Your task to perform on an android device: create a new album in the google photos Image 0: 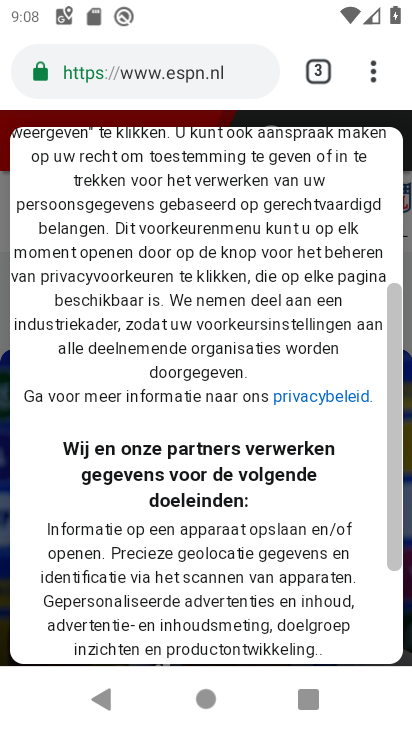
Step 0: press back button
Your task to perform on an android device: create a new album in the google photos Image 1: 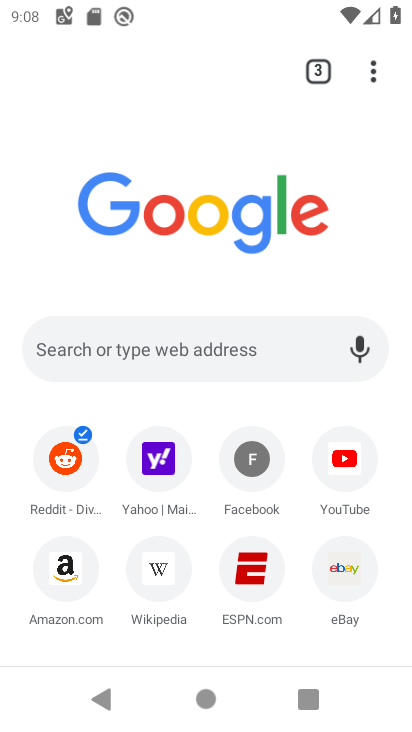
Step 1: press home button
Your task to perform on an android device: create a new album in the google photos Image 2: 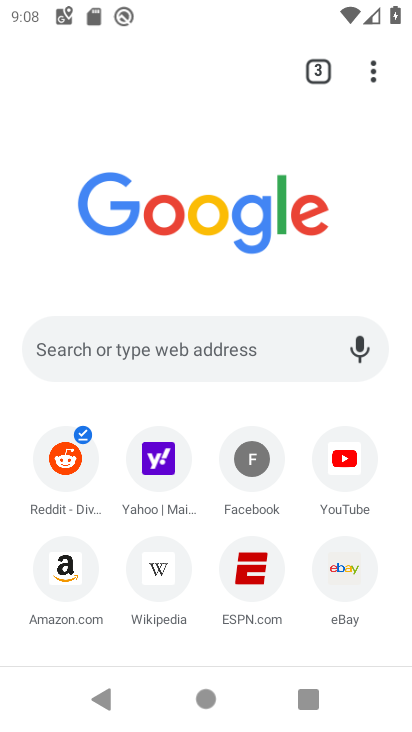
Step 2: press home button
Your task to perform on an android device: create a new album in the google photos Image 3: 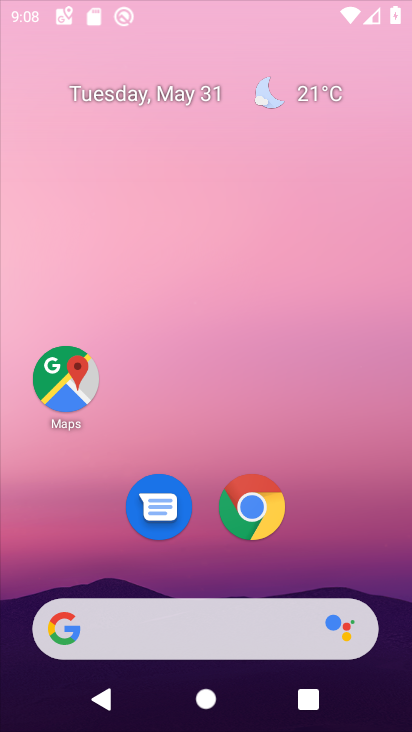
Step 3: press home button
Your task to perform on an android device: create a new album in the google photos Image 4: 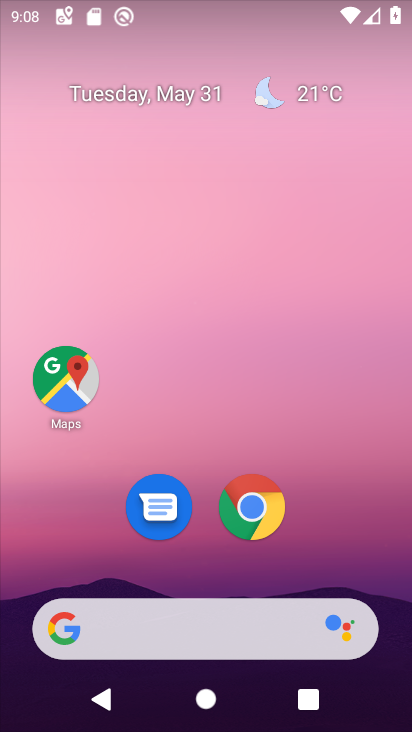
Step 4: drag from (261, 682) to (232, 19)
Your task to perform on an android device: create a new album in the google photos Image 5: 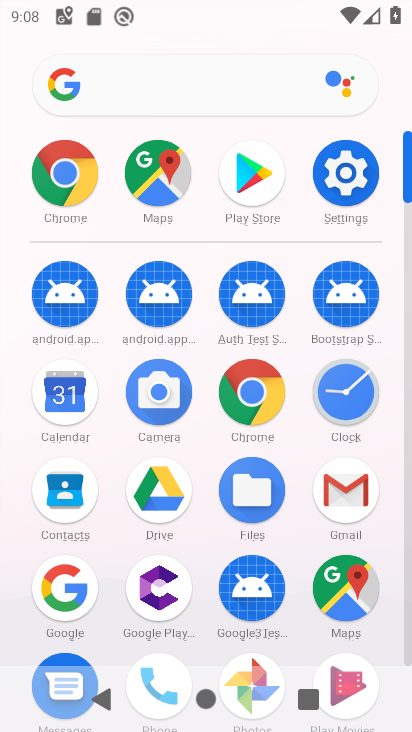
Step 5: drag from (308, 531) to (302, 114)
Your task to perform on an android device: create a new album in the google photos Image 6: 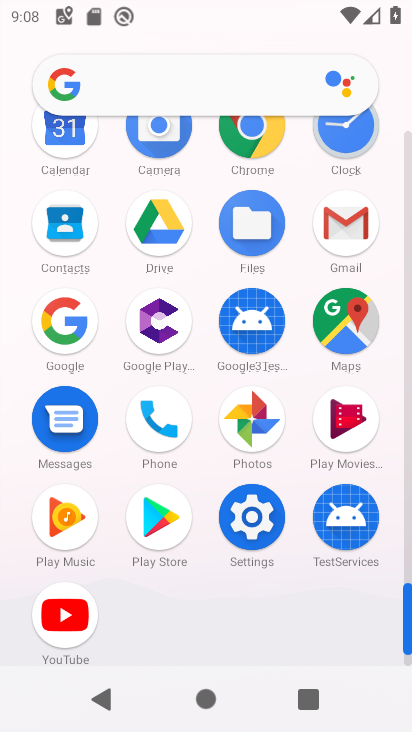
Step 6: drag from (305, 422) to (298, 74)
Your task to perform on an android device: create a new album in the google photos Image 7: 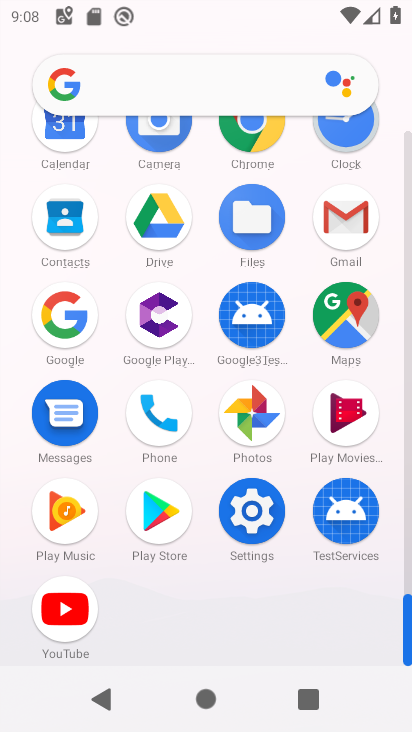
Step 7: click (246, 406)
Your task to perform on an android device: create a new album in the google photos Image 8: 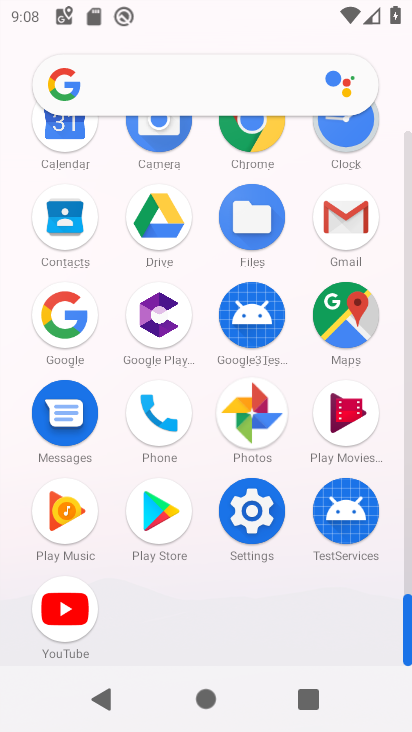
Step 8: click (246, 406)
Your task to perform on an android device: create a new album in the google photos Image 9: 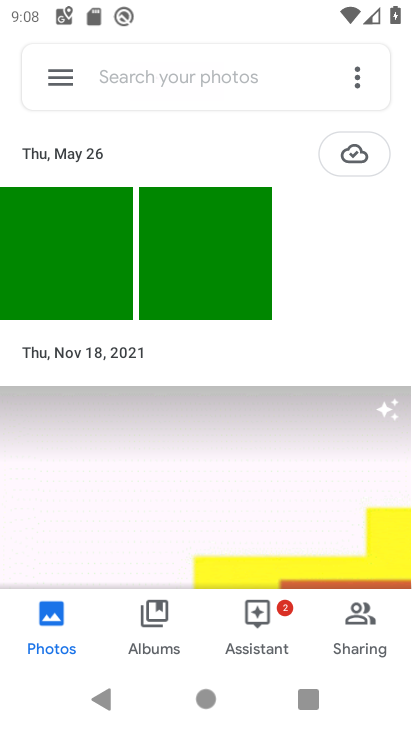
Step 9: click (356, 78)
Your task to perform on an android device: create a new album in the google photos Image 10: 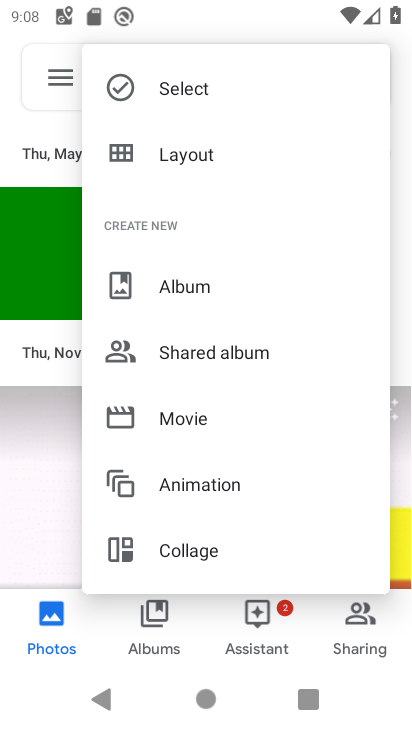
Step 10: click (174, 279)
Your task to perform on an android device: create a new album in the google photos Image 11: 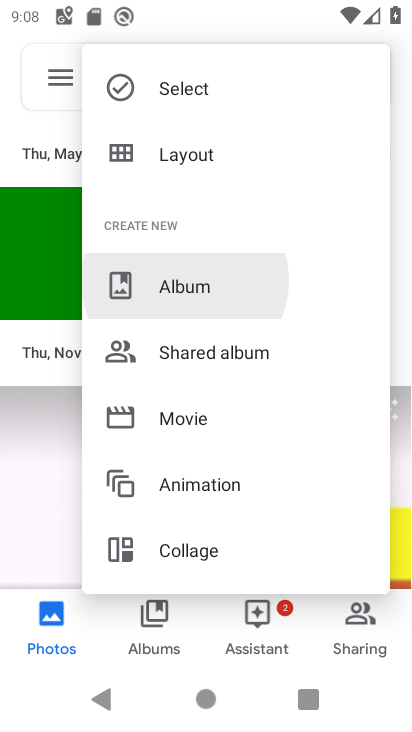
Step 11: click (177, 281)
Your task to perform on an android device: create a new album in the google photos Image 12: 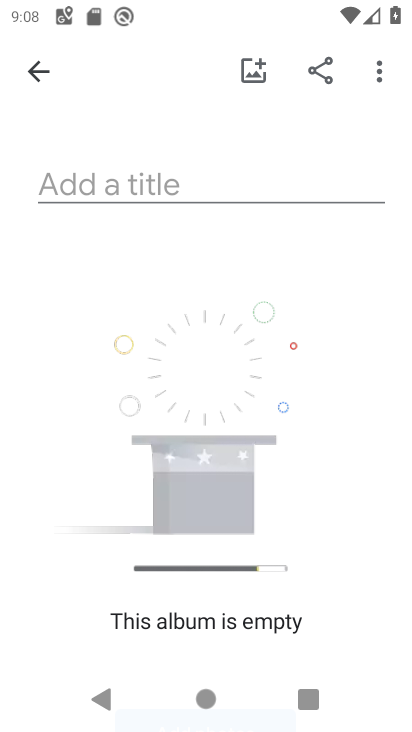
Step 12: click (106, 176)
Your task to perform on an android device: create a new album in the google photos Image 13: 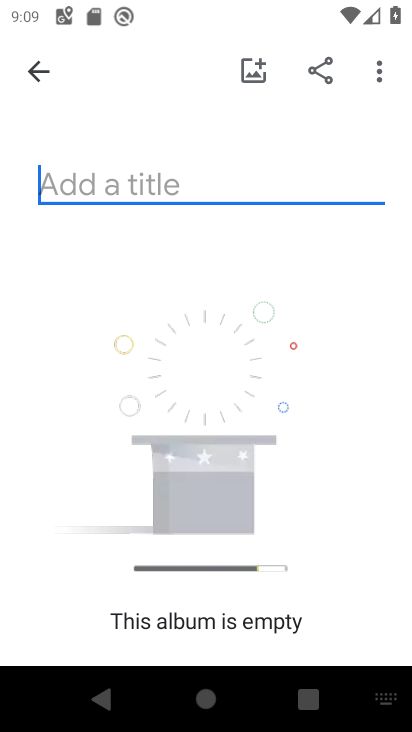
Step 13: type "rahu"
Your task to perform on an android device: create a new album in the google photos Image 14: 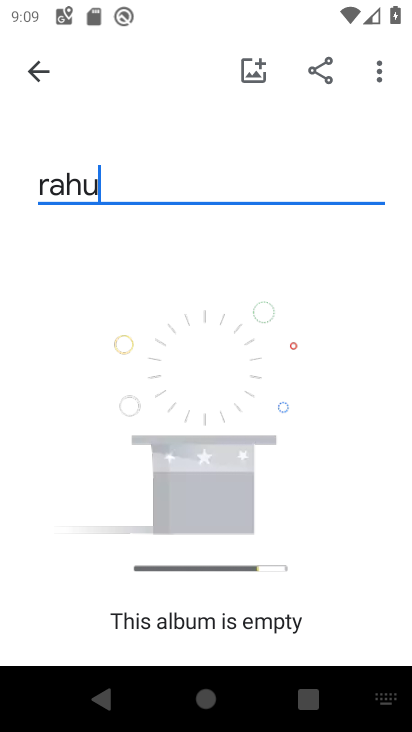
Step 14: click (176, 615)
Your task to perform on an android device: create a new album in the google photos Image 15: 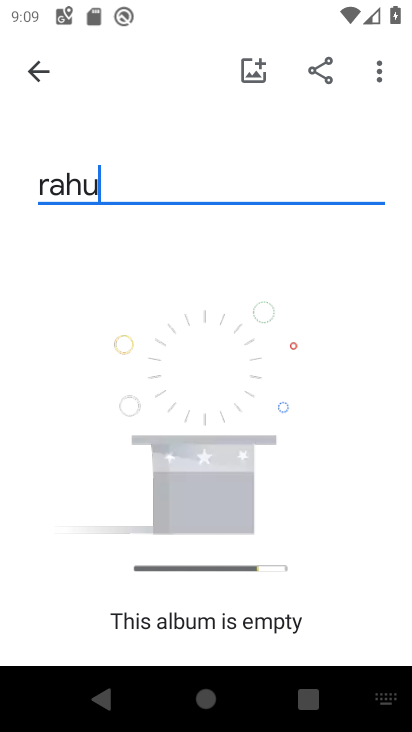
Step 15: click (176, 615)
Your task to perform on an android device: create a new album in the google photos Image 16: 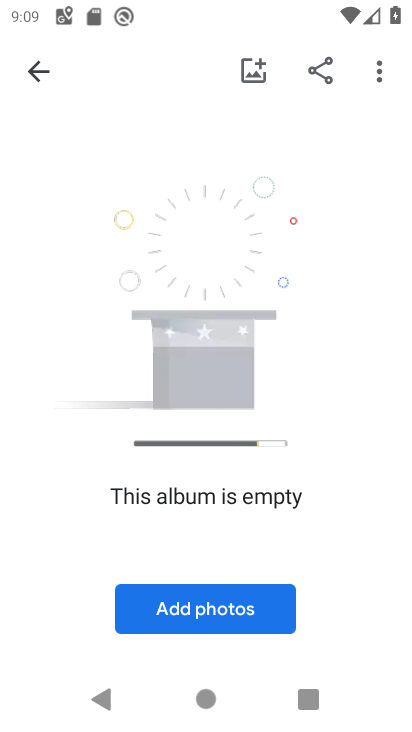
Step 16: click (176, 615)
Your task to perform on an android device: create a new album in the google photos Image 17: 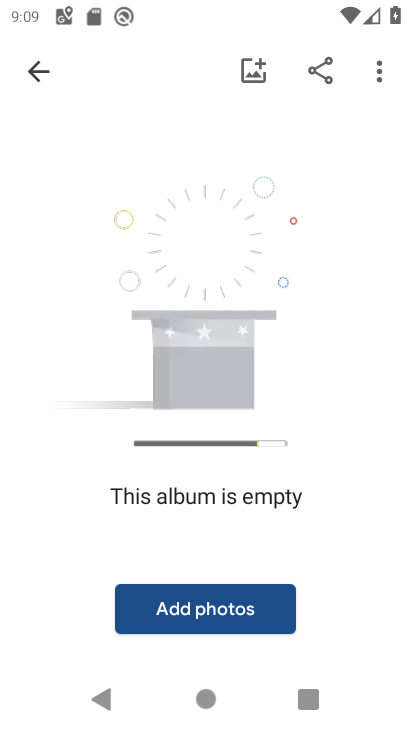
Step 17: click (176, 615)
Your task to perform on an android device: create a new album in the google photos Image 18: 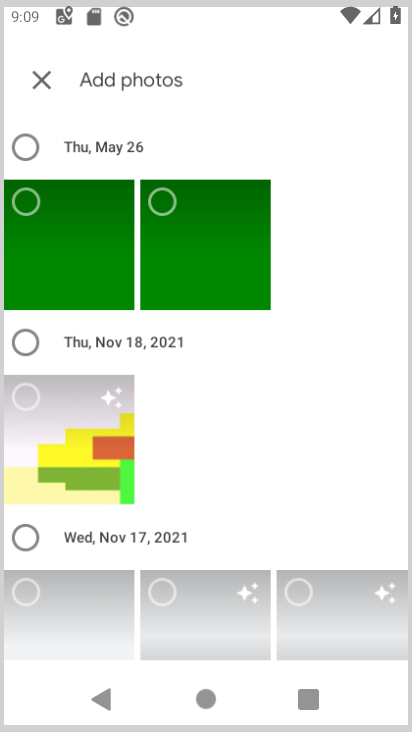
Step 18: click (176, 615)
Your task to perform on an android device: create a new album in the google photos Image 19: 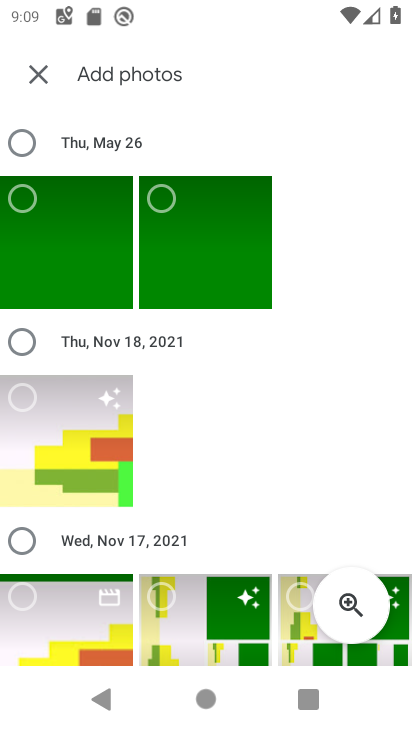
Step 19: click (25, 142)
Your task to perform on an android device: create a new album in the google photos Image 20: 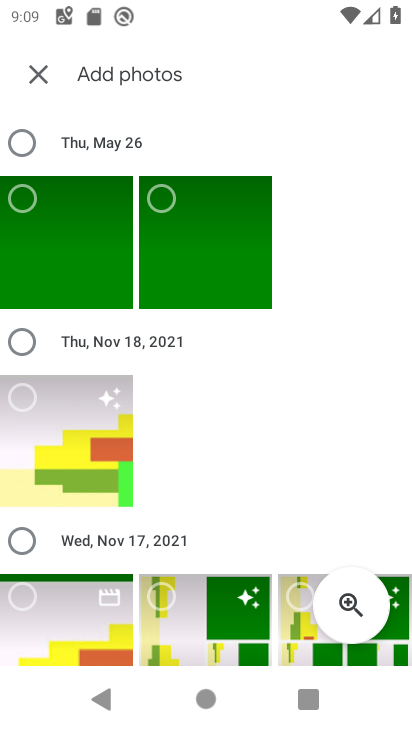
Step 20: click (25, 142)
Your task to perform on an android device: create a new album in the google photos Image 21: 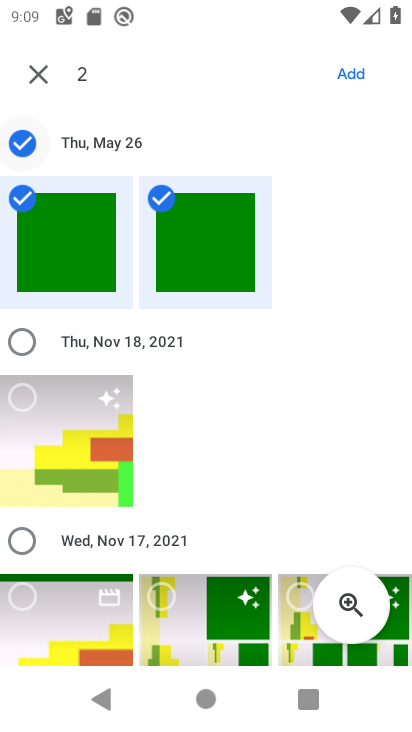
Step 21: click (25, 142)
Your task to perform on an android device: create a new album in the google photos Image 22: 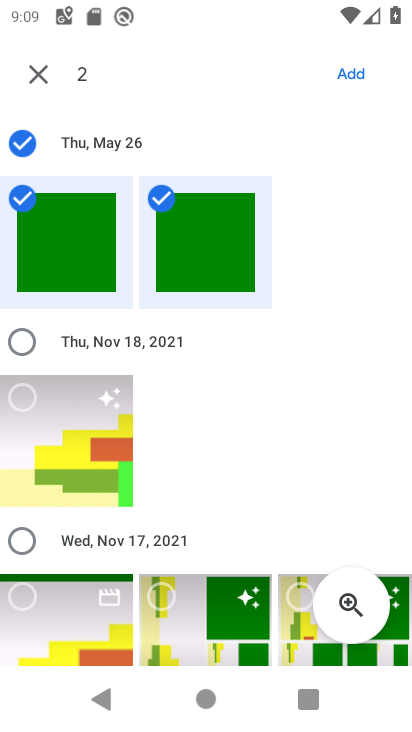
Step 22: click (361, 80)
Your task to perform on an android device: create a new album in the google photos Image 23: 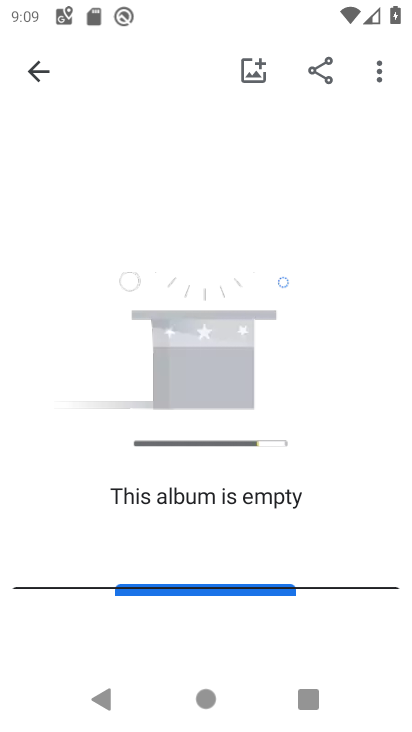
Step 23: click (356, 66)
Your task to perform on an android device: create a new album in the google photos Image 24: 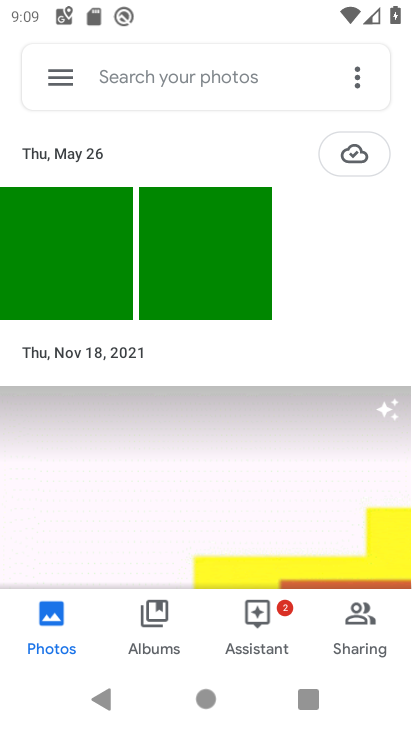
Step 24: task complete